Your task to perform on an android device: Open the Play Movies app and select the watchlist tab. Image 0: 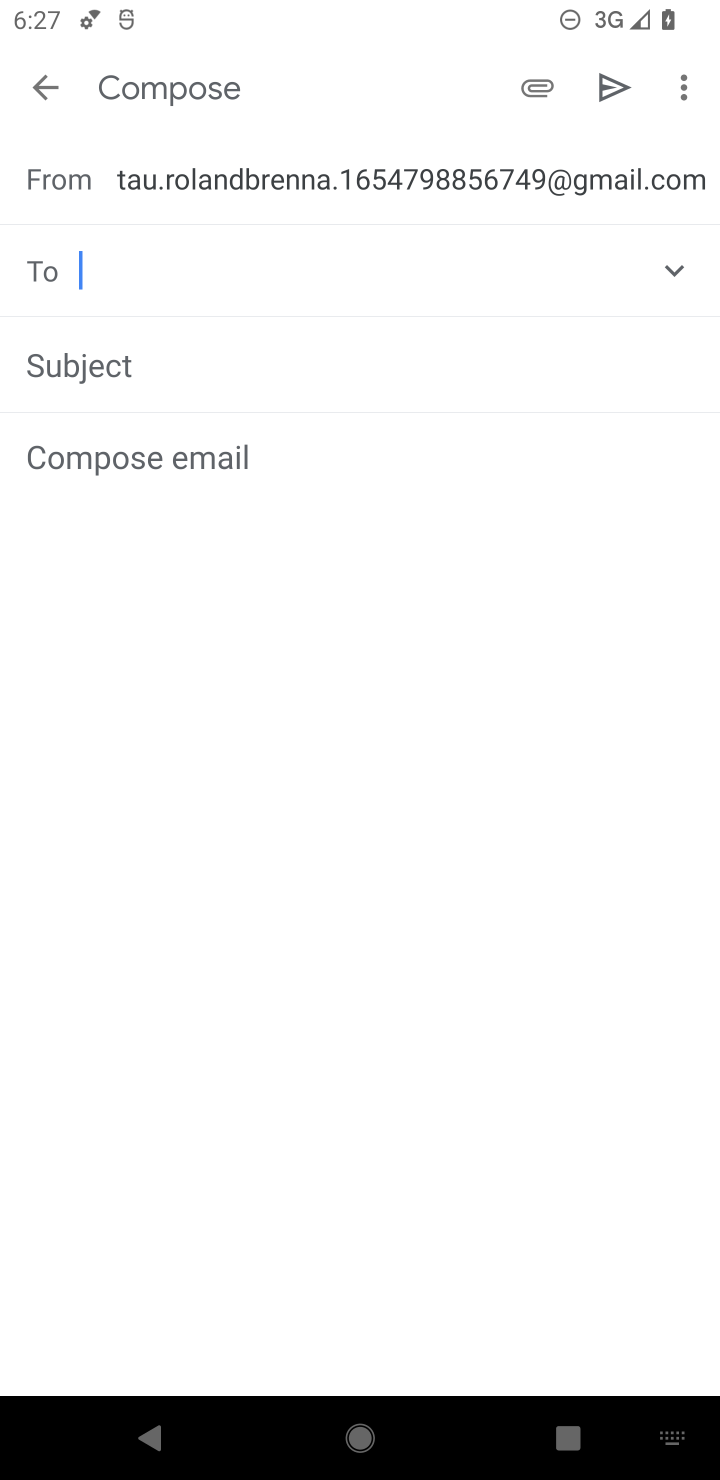
Step 0: press home button
Your task to perform on an android device: Open the Play Movies app and select the watchlist tab. Image 1: 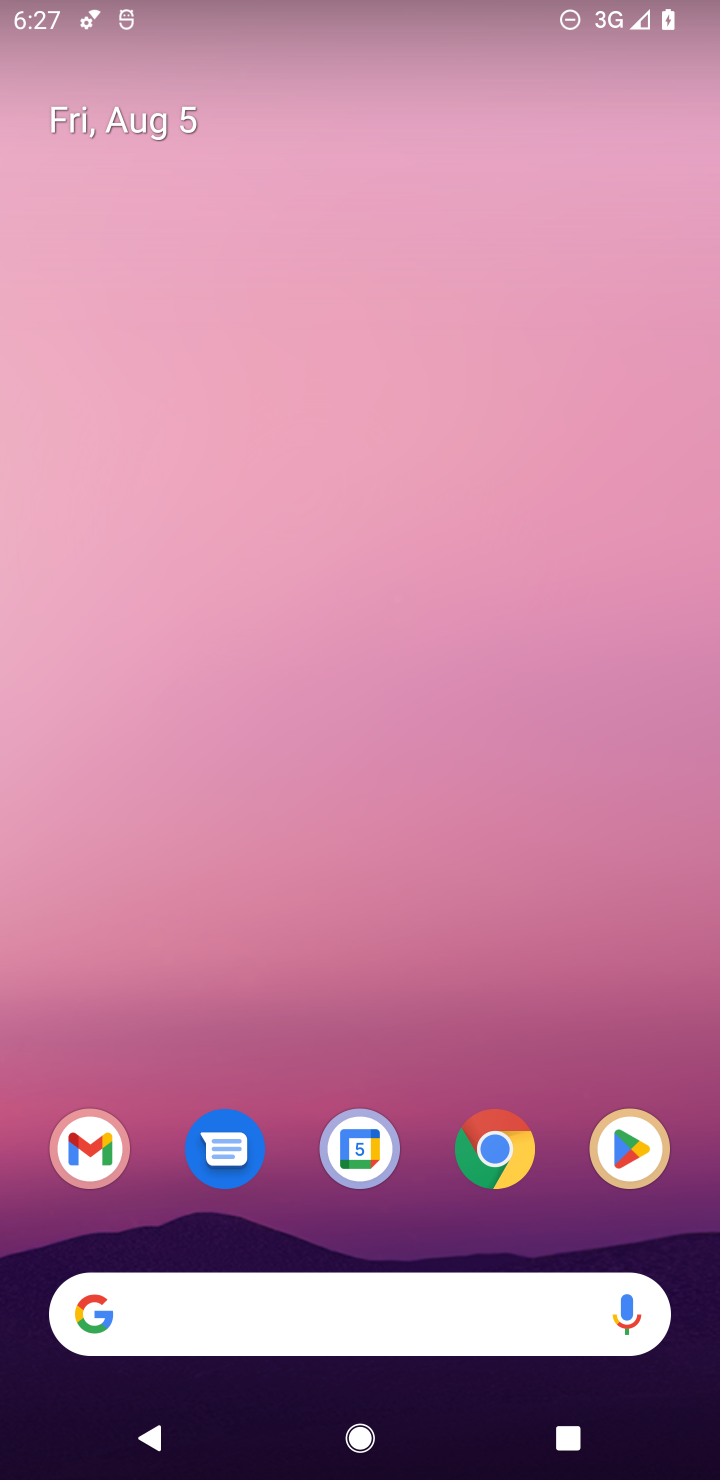
Step 1: task complete